Your task to perform on an android device: Open the map Image 0: 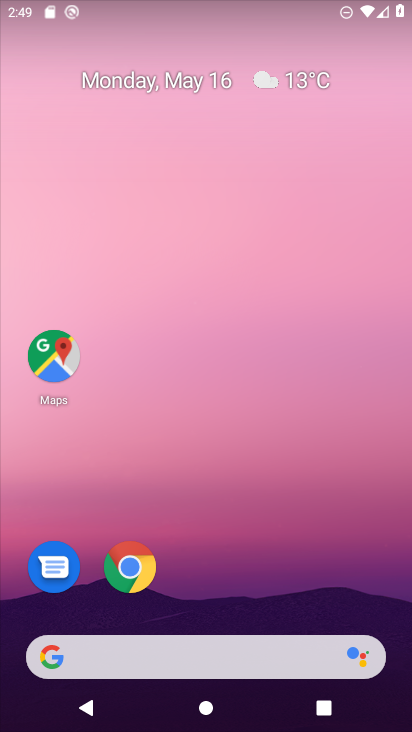
Step 0: click (59, 355)
Your task to perform on an android device: Open the map Image 1: 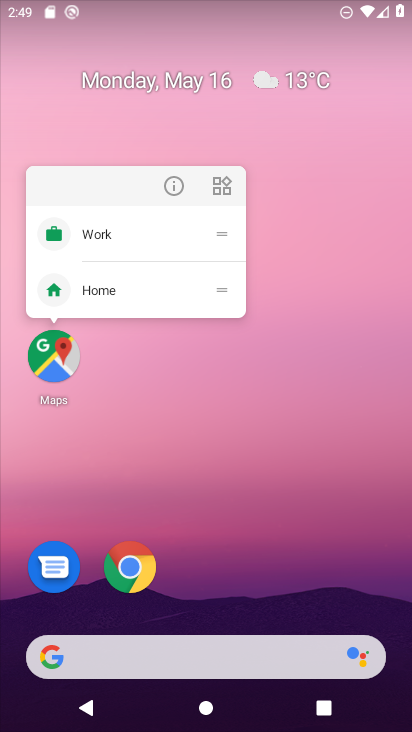
Step 1: click (56, 374)
Your task to perform on an android device: Open the map Image 2: 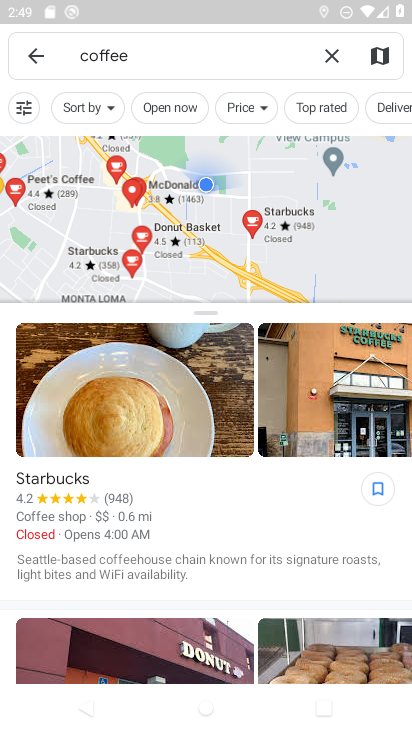
Step 2: click (31, 49)
Your task to perform on an android device: Open the map Image 3: 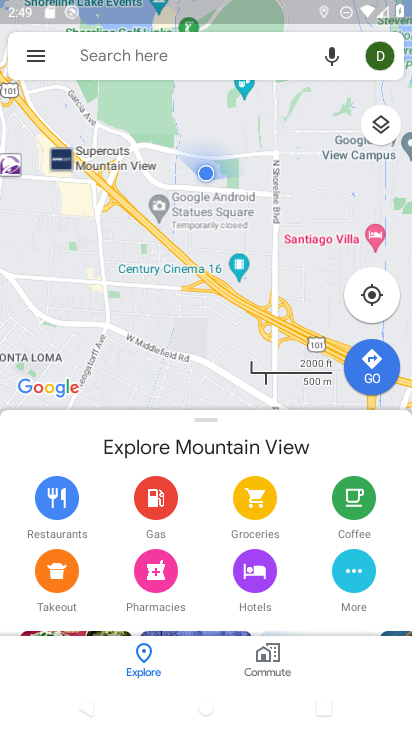
Step 3: task complete